Your task to perform on an android device: Go to sound settings Image 0: 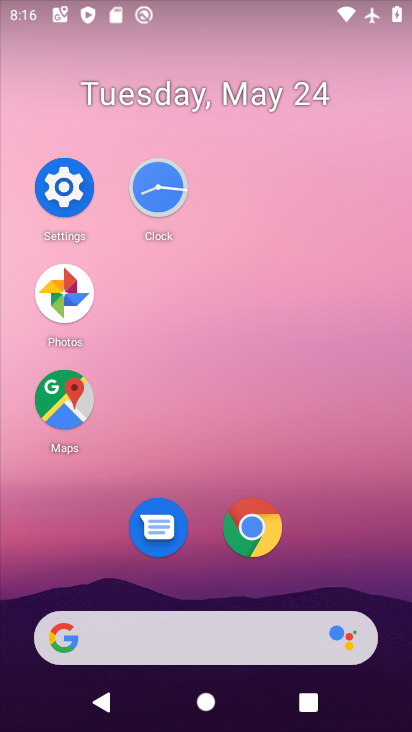
Step 0: click (45, 191)
Your task to perform on an android device: Go to sound settings Image 1: 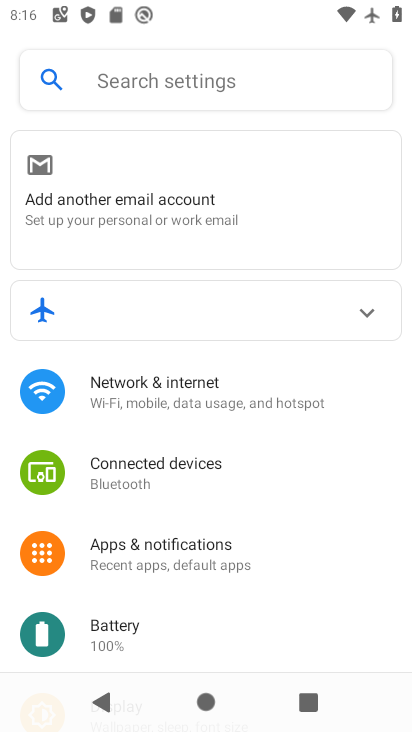
Step 1: drag from (214, 527) to (231, 267)
Your task to perform on an android device: Go to sound settings Image 2: 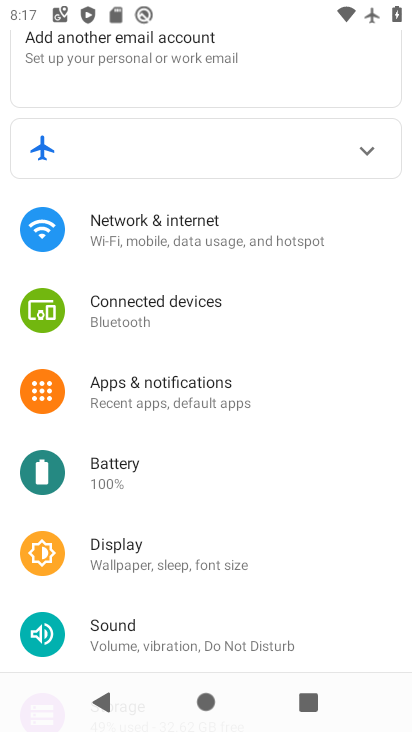
Step 2: drag from (175, 569) to (147, 317)
Your task to perform on an android device: Go to sound settings Image 3: 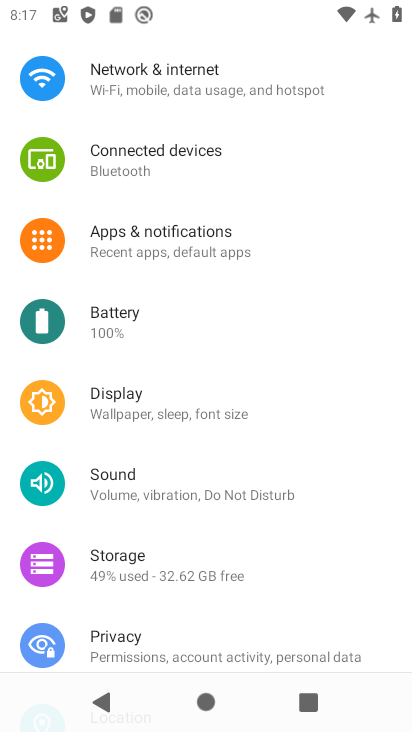
Step 3: click (146, 499)
Your task to perform on an android device: Go to sound settings Image 4: 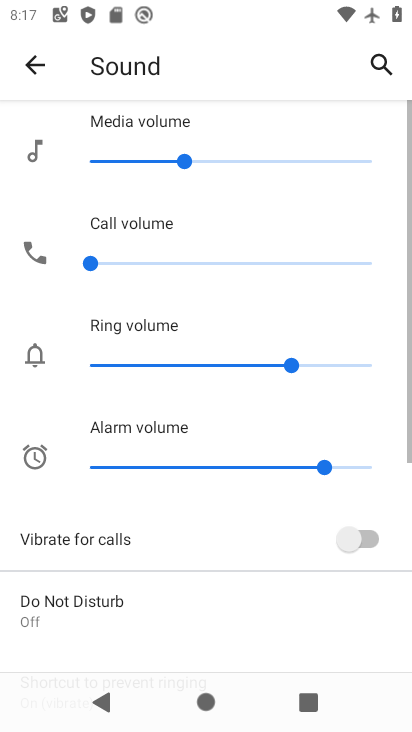
Step 4: task complete